Your task to perform on an android device: Toggle the flashlight Image 0: 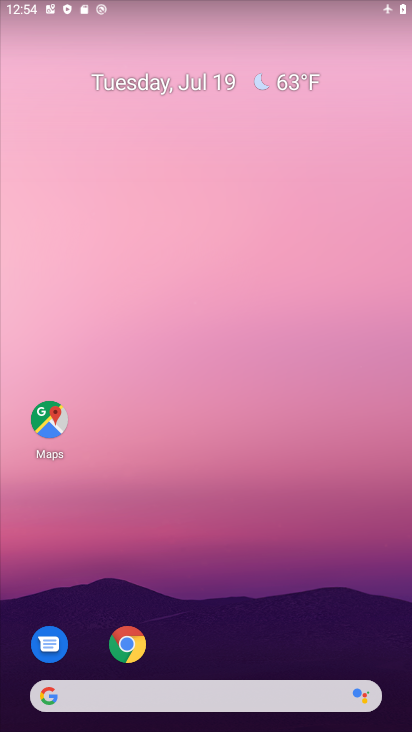
Step 0: drag from (216, 728) to (216, 118)
Your task to perform on an android device: Toggle the flashlight Image 1: 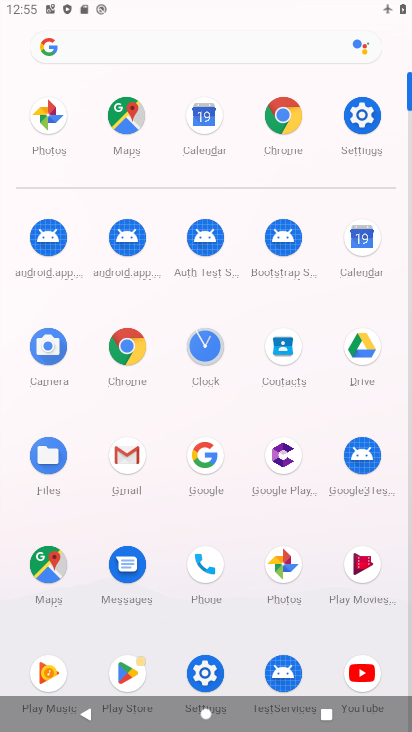
Step 1: click (359, 105)
Your task to perform on an android device: Toggle the flashlight Image 2: 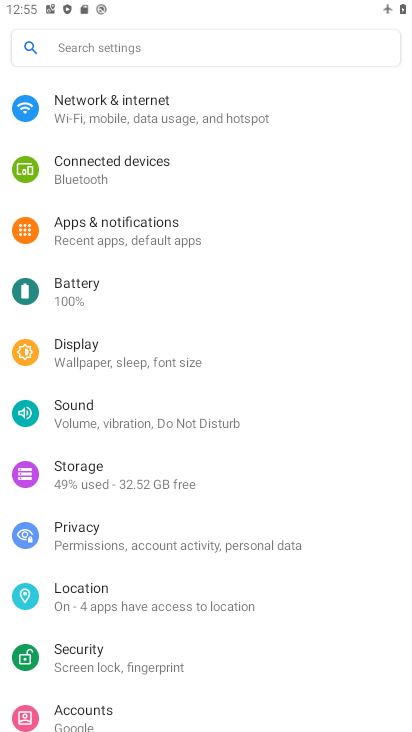
Step 2: task complete